Your task to perform on an android device: allow cookies in the chrome app Image 0: 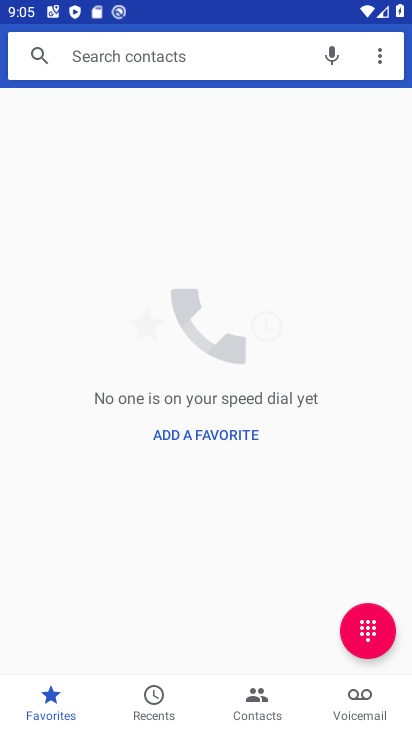
Step 0: press home button
Your task to perform on an android device: allow cookies in the chrome app Image 1: 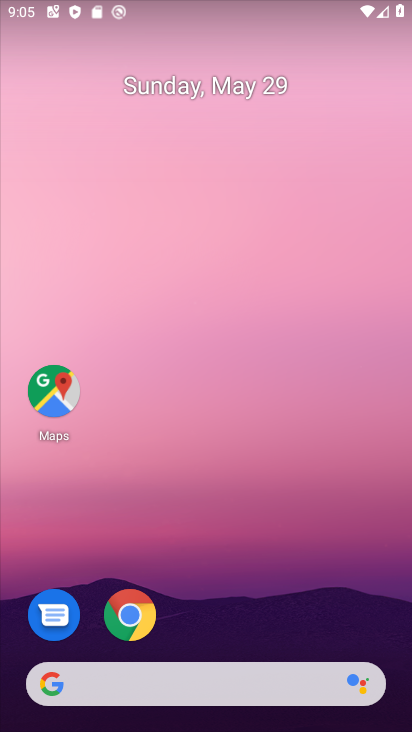
Step 1: click (126, 602)
Your task to perform on an android device: allow cookies in the chrome app Image 2: 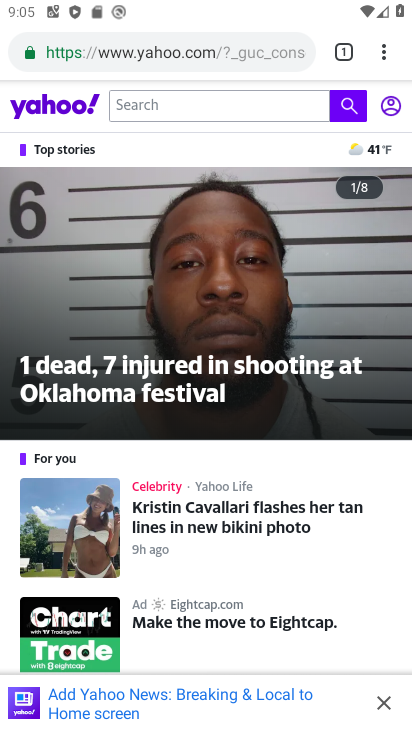
Step 2: click (387, 47)
Your task to perform on an android device: allow cookies in the chrome app Image 3: 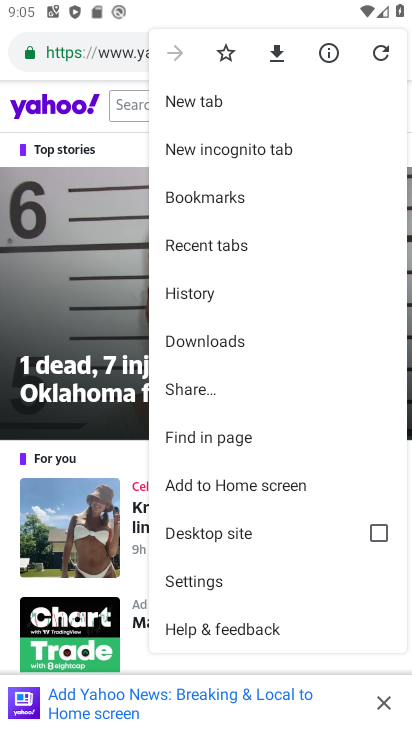
Step 3: click (237, 575)
Your task to perform on an android device: allow cookies in the chrome app Image 4: 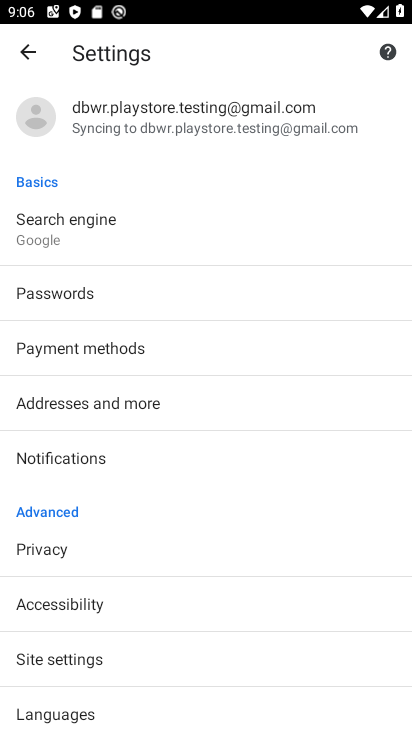
Step 4: click (98, 648)
Your task to perform on an android device: allow cookies in the chrome app Image 5: 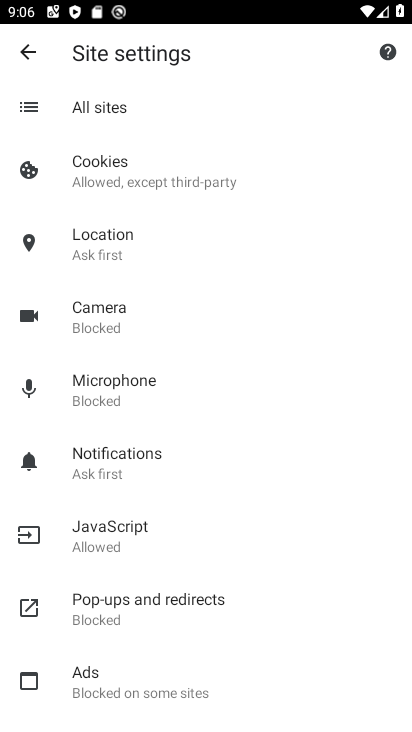
Step 5: click (150, 180)
Your task to perform on an android device: allow cookies in the chrome app Image 6: 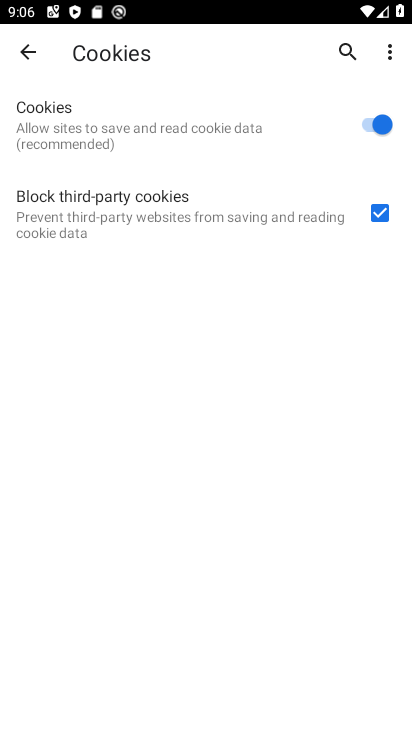
Step 6: task complete